Your task to perform on an android device: toggle airplane mode Image 0: 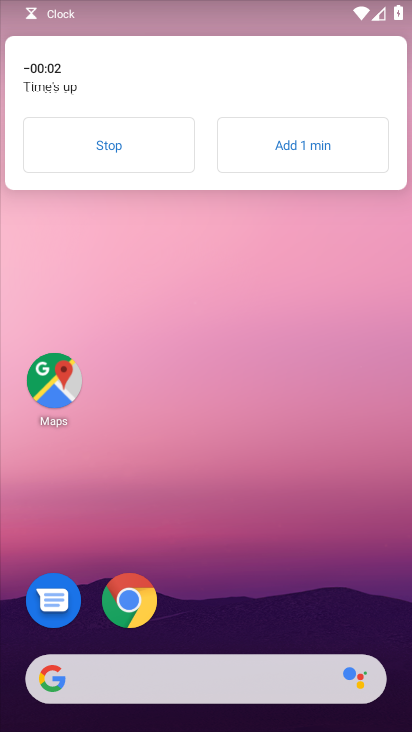
Step 0: click (120, 135)
Your task to perform on an android device: toggle airplane mode Image 1: 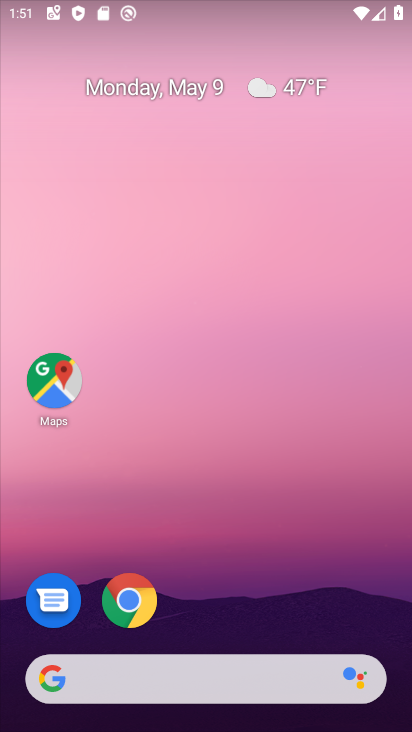
Step 1: drag from (240, 16) to (209, 720)
Your task to perform on an android device: toggle airplane mode Image 2: 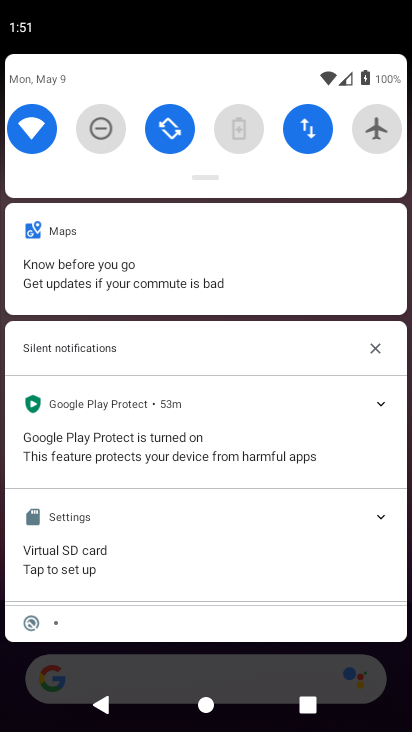
Step 2: click (378, 134)
Your task to perform on an android device: toggle airplane mode Image 3: 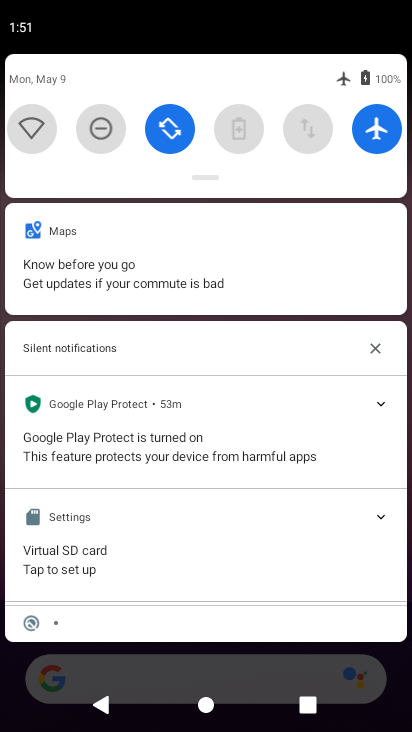
Step 3: click (378, 134)
Your task to perform on an android device: toggle airplane mode Image 4: 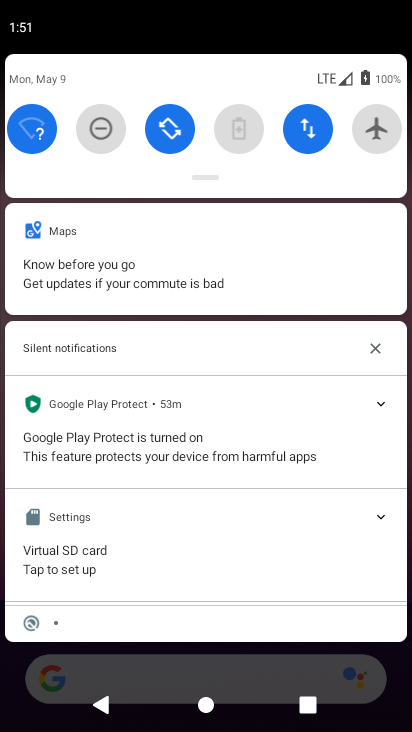
Step 4: task complete